Your task to perform on an android device: turn on showing notifications on the lock screen Image 0: 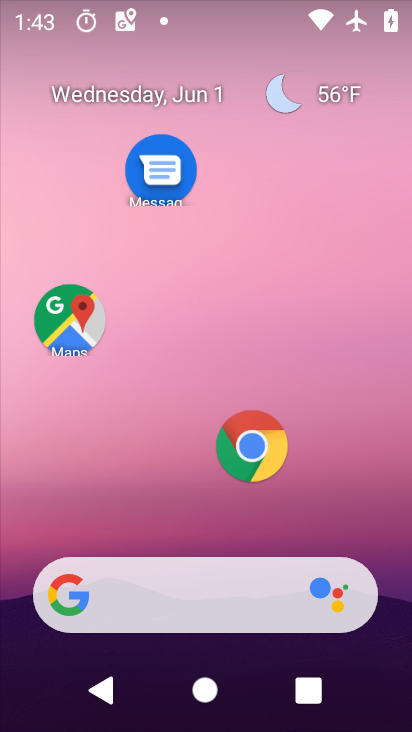
Step 0: drag from (169, 507) to (282, 107)
Your task to perform on an android device: turn on showing notifications on the lock screen Image 1: 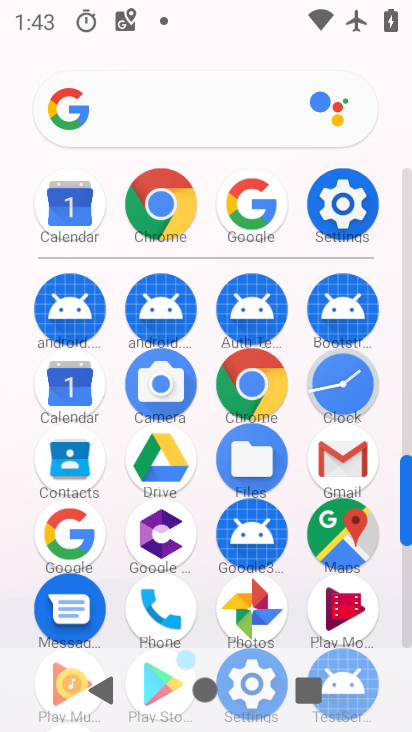
Step 1: drag from (194, 263) to (248, 26)
Your task to perform on an android device: turn on showing notifications on the lock screen Image 2: 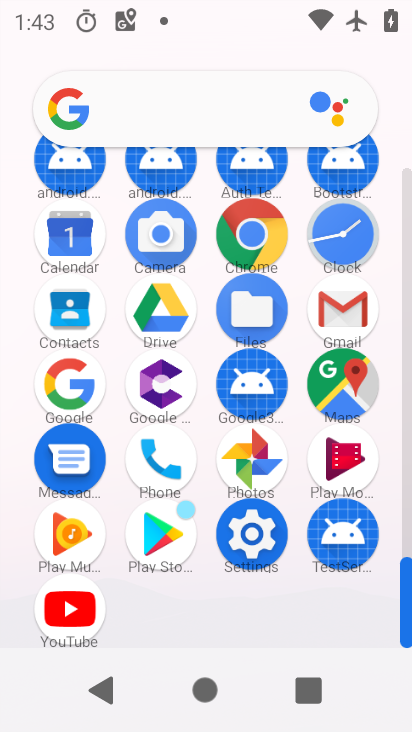
Step 2: click (266, 540)
Your task to perform on an android device: turn on showing notifications on the lock screen Image 3: 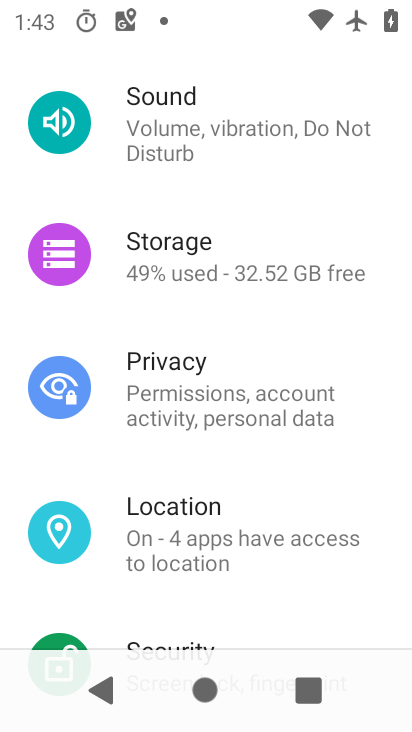
Step 3: drag from (284, 189) to (212, 667)
Your task to perform on an android device: turn on showing notifications on the lock screen Image 4: 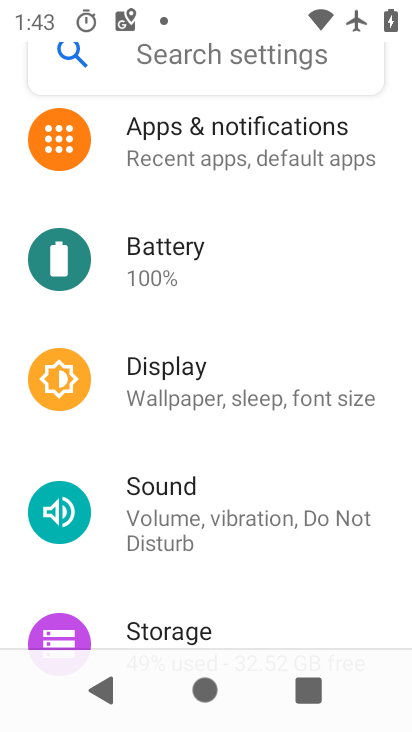
Step 4: click (288, 162)
Your task to perform on an android device: turn on showing notifications on the lock screen Image 5: 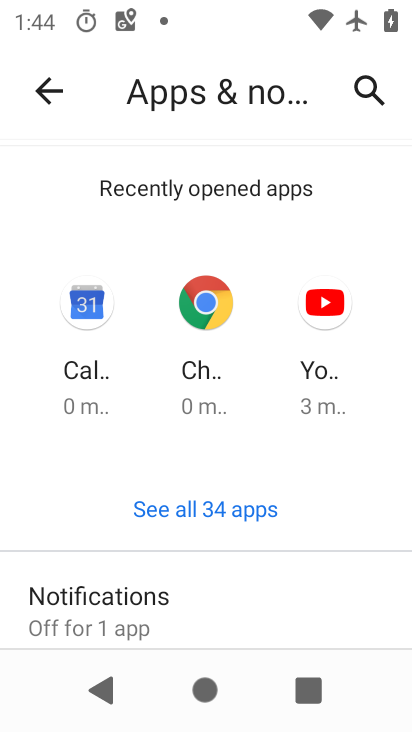
Step 5: drag from (221, 610) to (243, 395)
Your task to perform on an android device: turn on showing notifications on the lock screen Image 6: 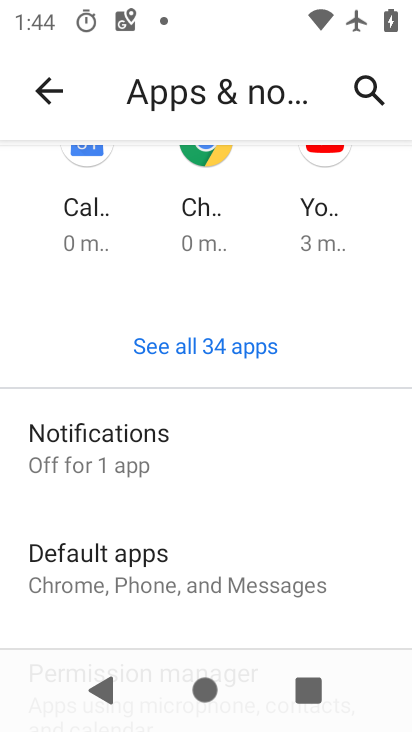
Step 6: click (192, 452)
Your task to perform on an android device: turn on showing notifications on the lock screen Image 7: 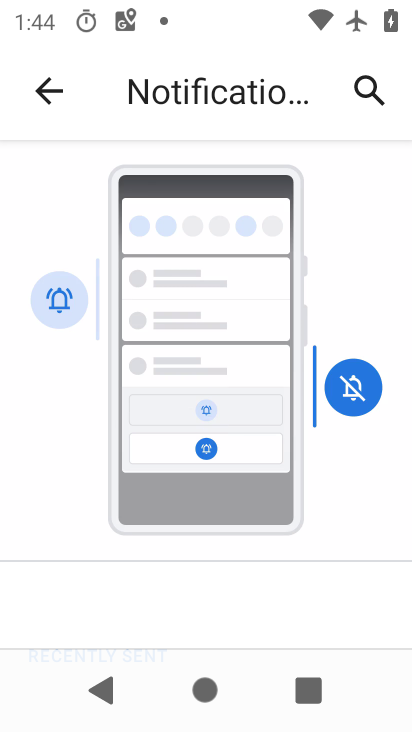
Step 7: drag from (170, 584) to (238, 274)
Your task to perform on an android device: turn on showing notifications on the lock screen Image 8: 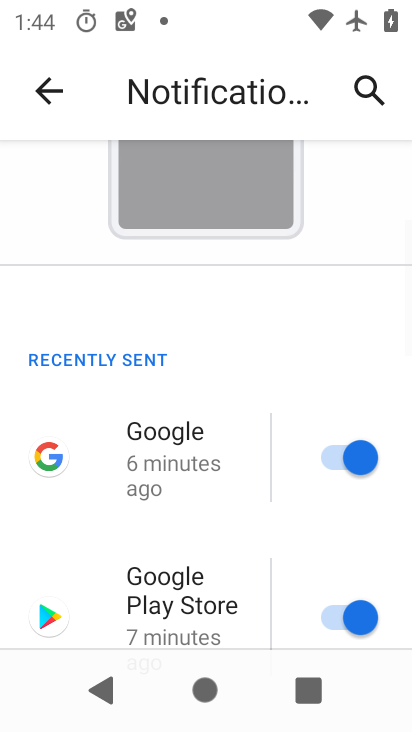
Step 8: drag from (194, 582) to (243, 152)
Your task to perform on an android device: turn on showing notifications on the lock screen Image 9: 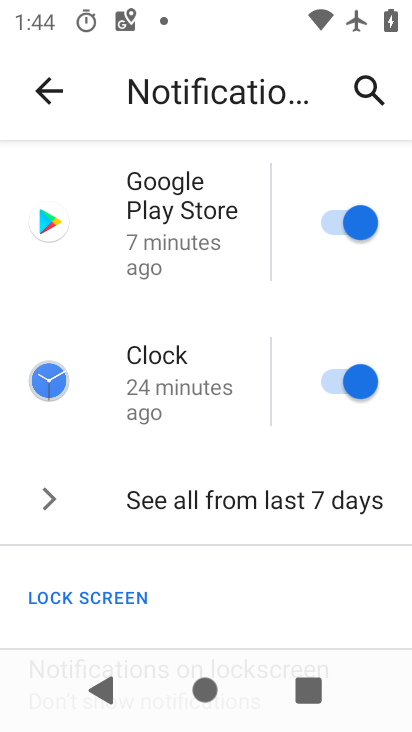
Step 9: drag from (205, 520) to (217, 196)
Your task to perform on an android device: turn on showing notifications on the lock screen Image 10: 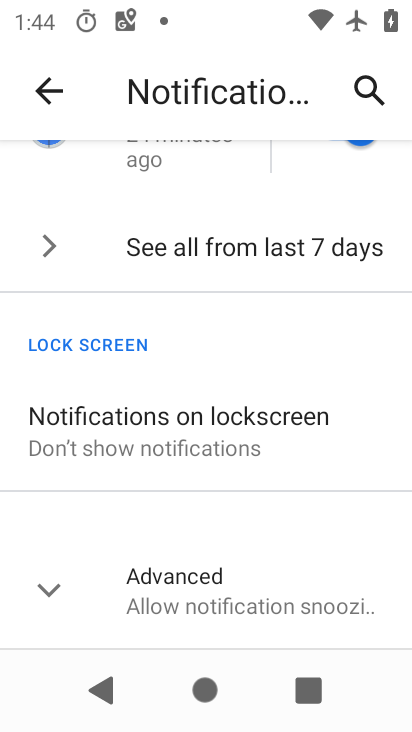
Step 10: click (198, 442)
Your task to perform on an android device: turn on showing notifications on the lock screen Image 11: 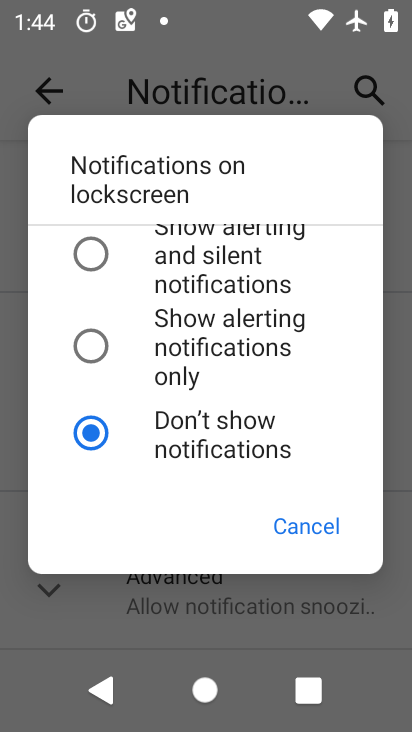
Step 11: click (166, 248)
Your task to perform on an android device: turn on showing notifications on the lock screen Image 12: 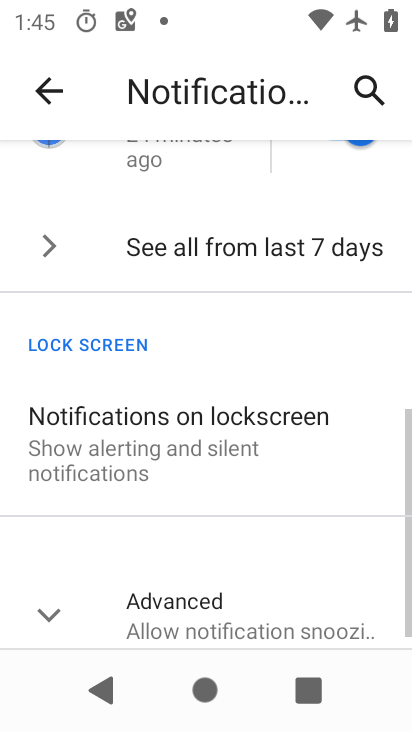
Step 12: task complete